Your task to perform on an android device: Open Google Maps and go to "Timeline" Image 0: 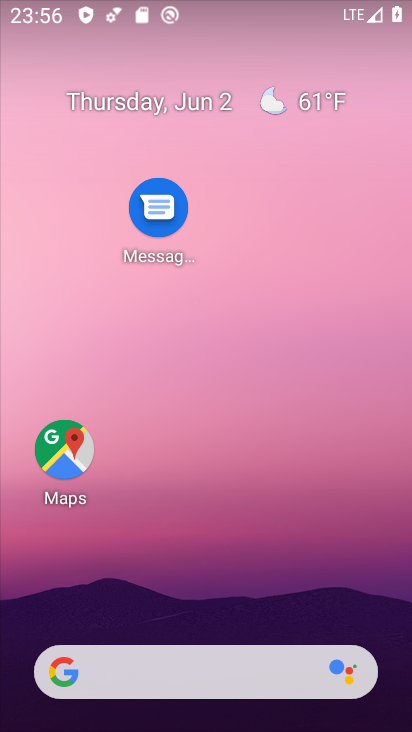
Step 0: drag from (198, 637) to (111, 0)
Your task to perform on an android device: Open Google Maps and go to "Timeline" Image 1: 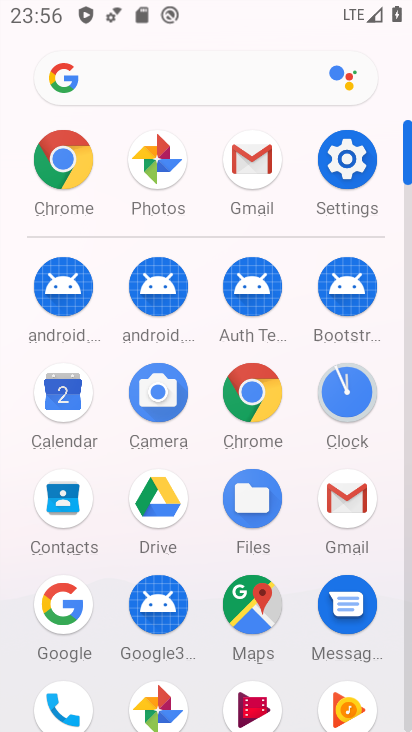
Step 1: click (249, 587)
Your task to perform on an android device: Open Google Maps and go to "Timeline" Image 2: 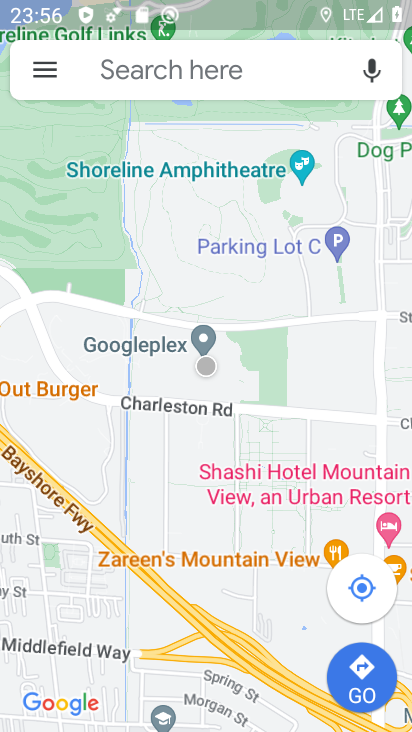
Step 2: click (47, 66)
Your task to perform on an android device: Open Google Maps and go to "Timeline" Image 3: 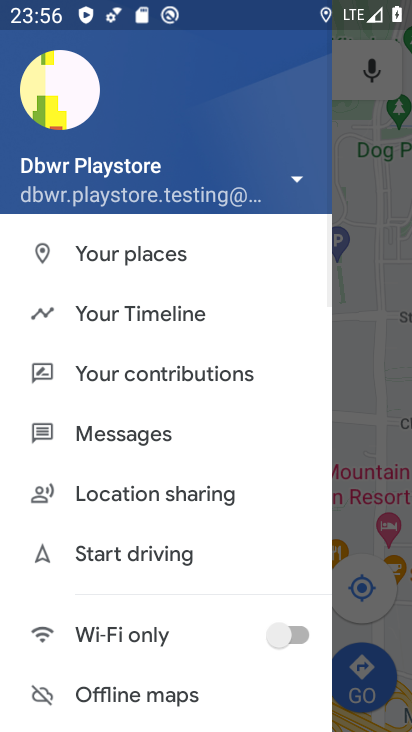
Step 3: click (139, 307)
Your task to perform on an android device: Open Google Maps and go to "Timeline" Image 4: 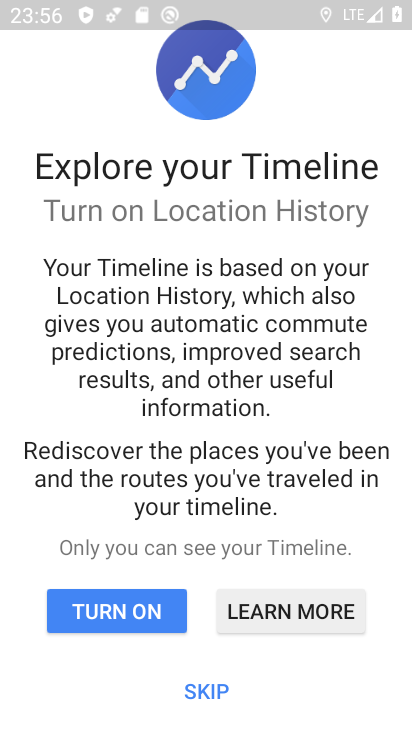
Step 4: task complete